Your task to perform on an android device: What is the news today? Image 0: 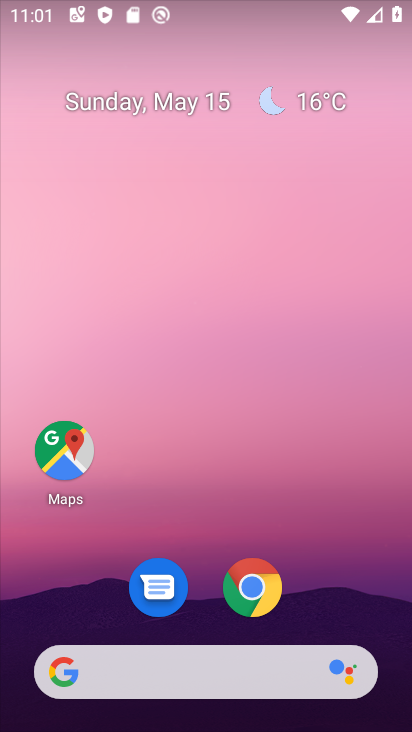
Step 0: drag from (311, 357) to (282, 67)
Your task to perform on an android device: What is the news today? Image 1: 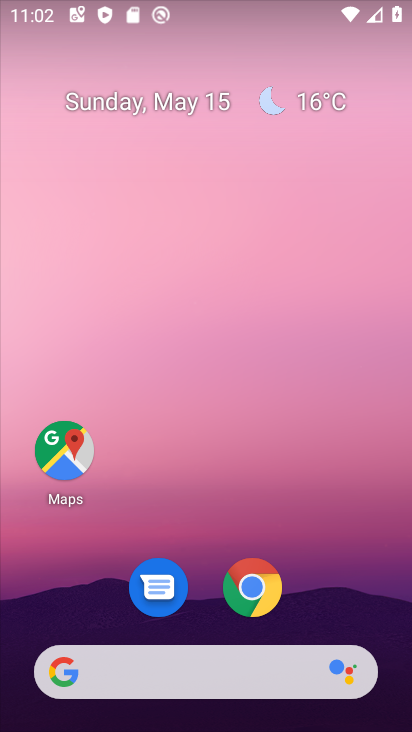
Step 1: drag from (316, 565) to (278, 14)
Your task to perform on an android device: What is the news today? Image 2: 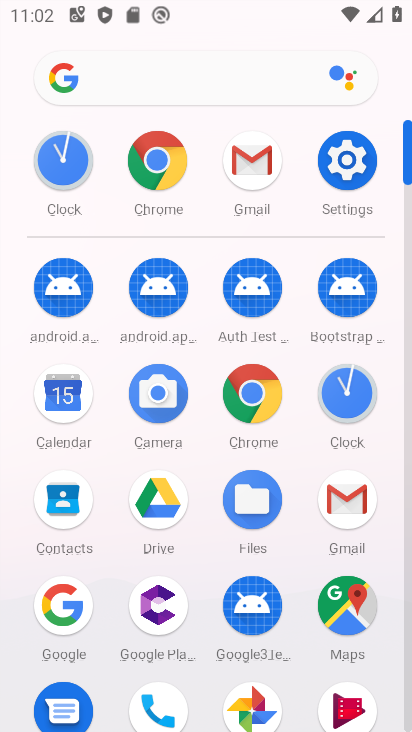
Step 2: click (156, 160)
Your task to perform on an android device: What is the news today? Image 3: 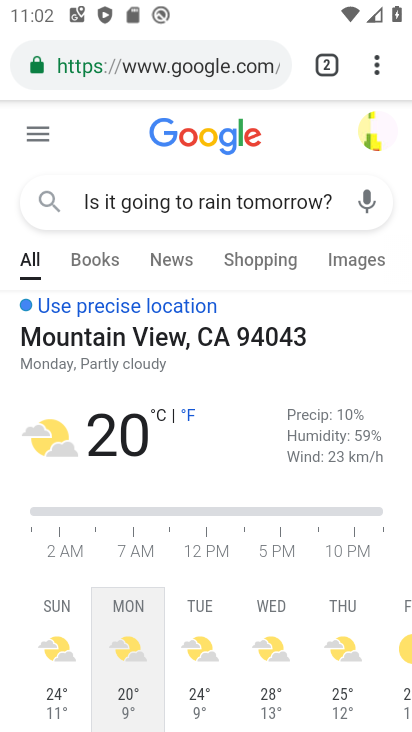
Step 3: click (174, 64)
Your task to perform on an android device: What is the news today? Image 4: 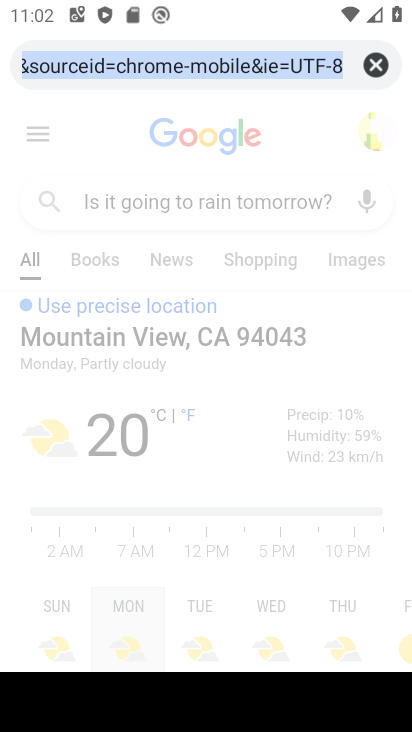
Step 4: click (371, 65)
Your task to perform on an android device: What is the news today? Image 5: 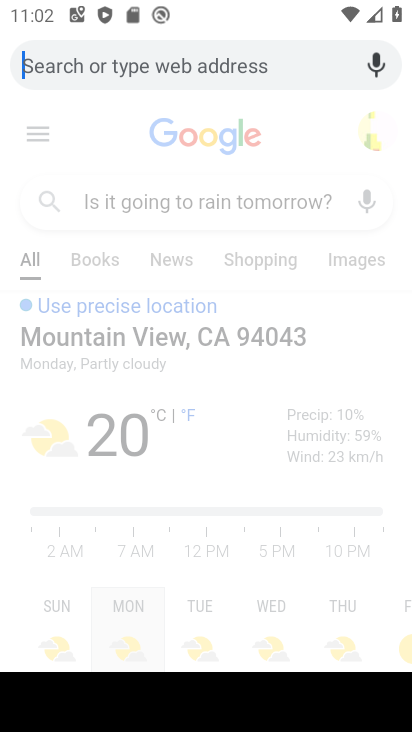
Step 5: type "What is the news today?"
Your task to perform on an android device: What is the news today? Image 6: 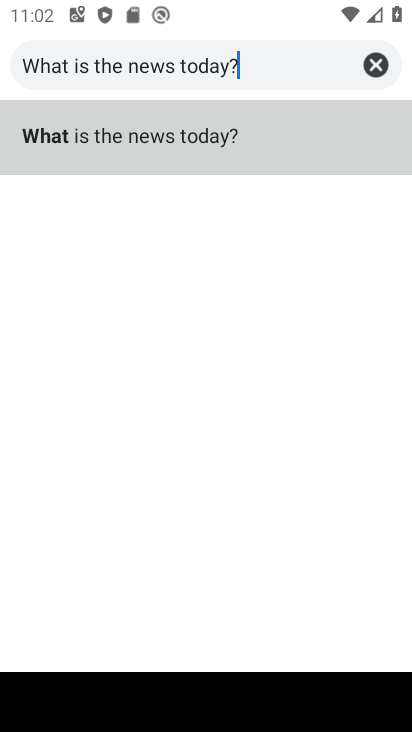
Step 6: type ""
Your task to perform on an android device: What is the news today? Image 7: 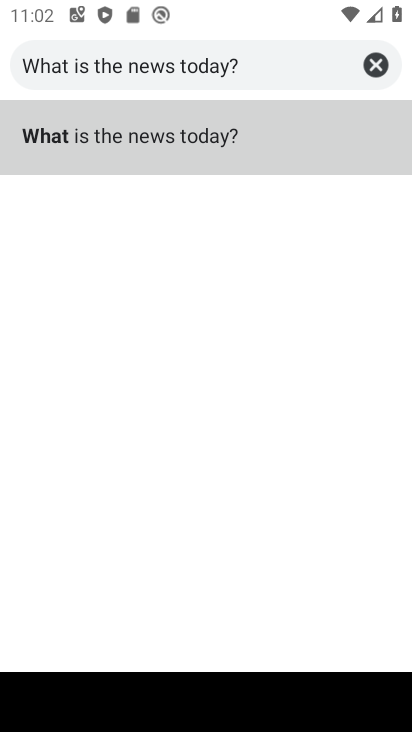
Step 7: click (248, 145)
Your task to perform on an android device: What is the news today? Image 8: 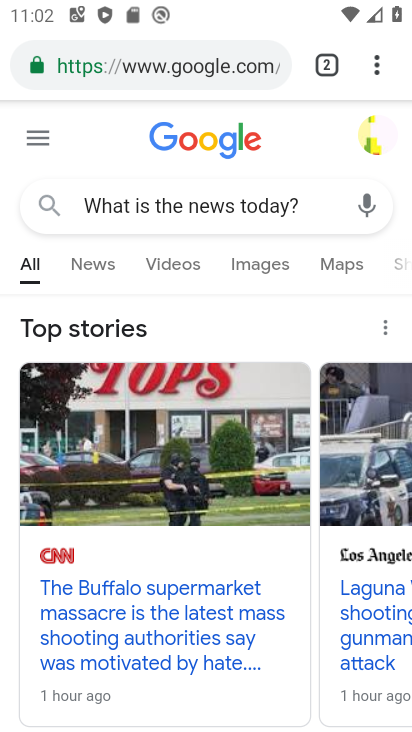
Step 8: task complete